Your task to perform on an android device: Open location settings Image 0: 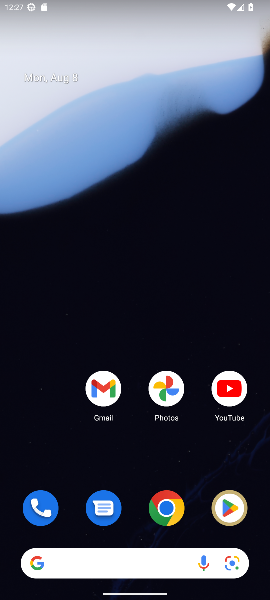
Step 0: drag from (204, 481) to (147, 182)
Your task to perform on an android device: Open location settings Image 1: 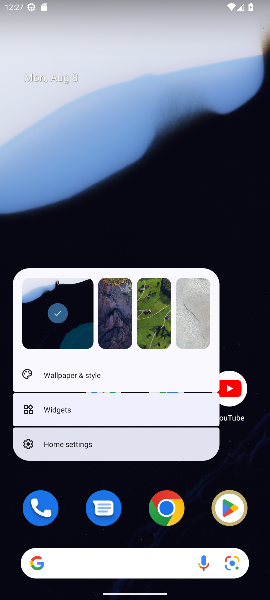
Step 1: click (141, 183)
Your task to perform on an android device: Open location settings Image 2: 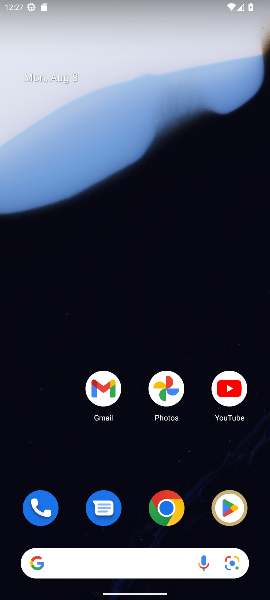
Step 2: drag from (83, 461) to (72, 147)
Your task to perform on an android device: Open location settings Image 3: 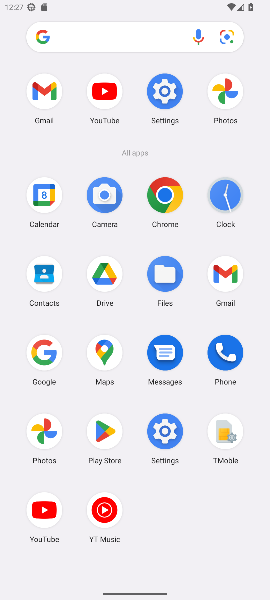
Step 3: click (159, 430)
Your task to perform on an android device: Open location settings Image 4: 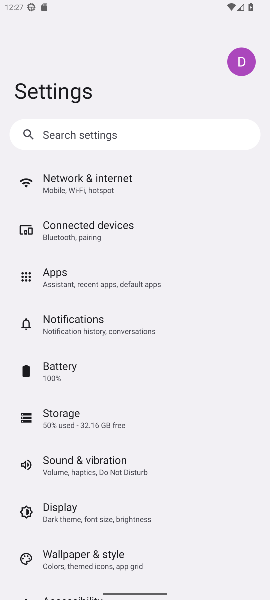
Step 4: drag from (143, 455) to (126, 296)
Your task to perform on an android device: Open location settings Image 5: 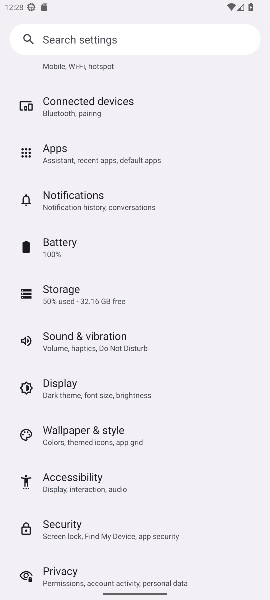
Step 5: drag from (148, 434) to (154, 290)
Your task to perform on an android device: Open location settings Image 6: 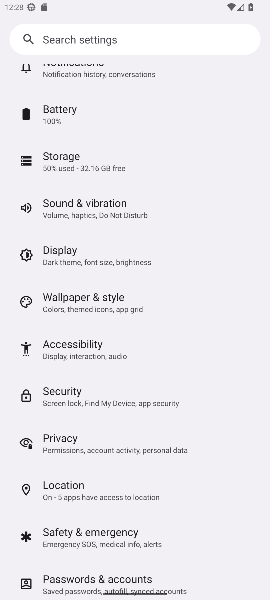
Step 6: click (102, 481)
Your task to perform on an android device: Open location settings Image 7: 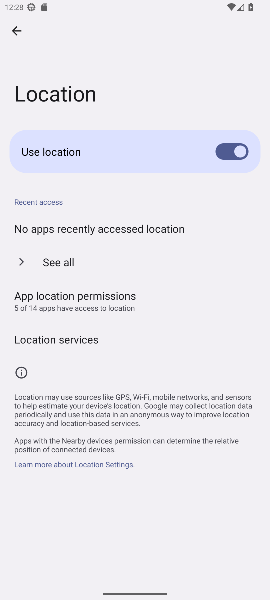
Step 7: task complete